Your task to perform on an android device: turn on priority inbox in the gmail app Image 0: 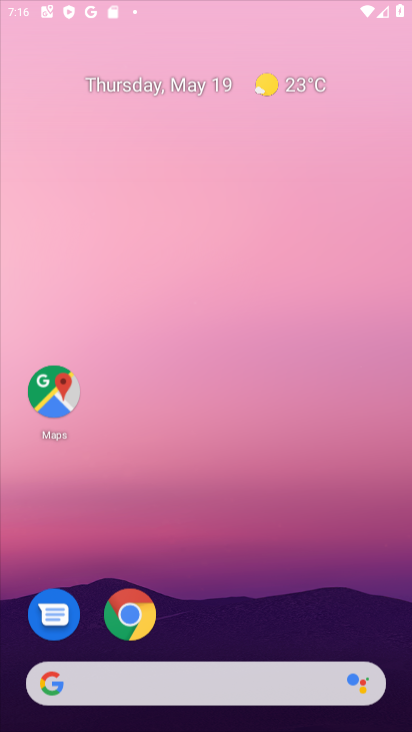
Step 0: drag from (369, 604) to (336, 48)
Your task to perform on an android device: turn on priority inbox in the gmail app Image 1: 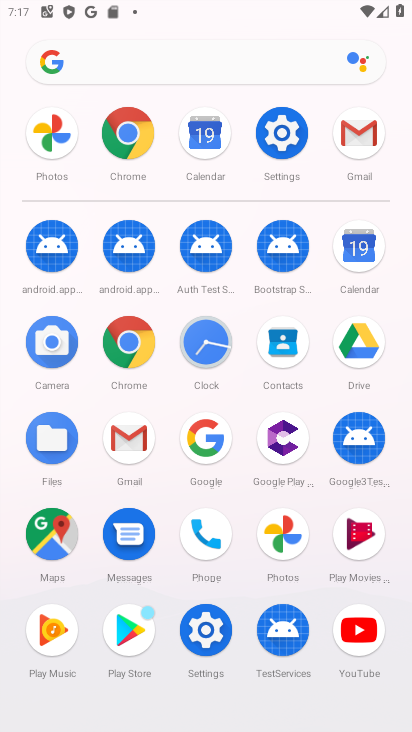
Step 1: click (105, 440)
Your task to perform on an android device: turn on priority inbox in the gmail app Image 2: 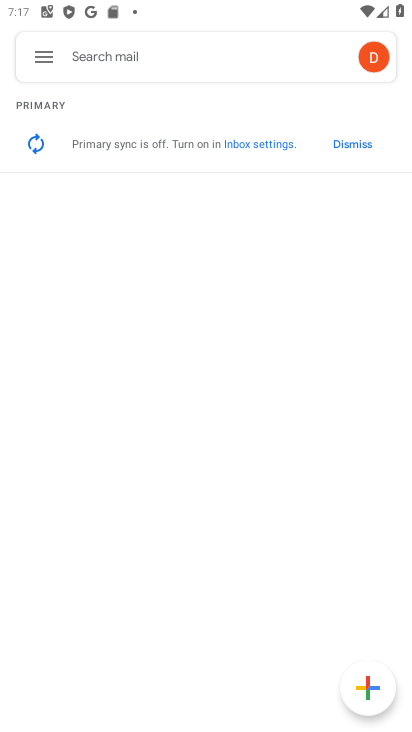
Step 2: click (56, 48)
Your task to perform on an android device: turn on priority inbox in the gmail app Image 3: 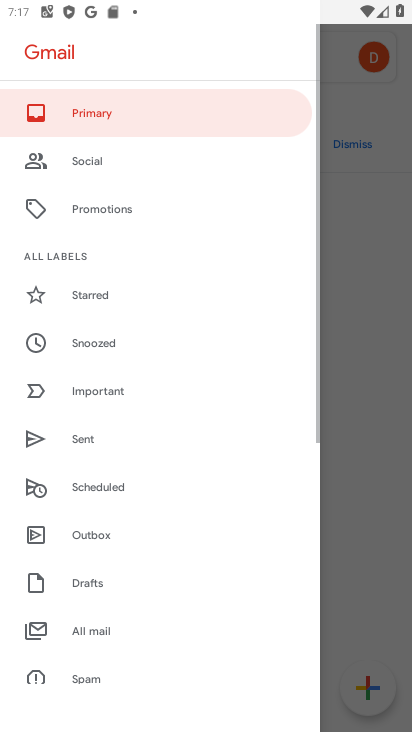
Step 3: drag from (102, 615) to (152, 121)
Your task to perform on an android device: turn on priority inbox in the gmail app Image 4: 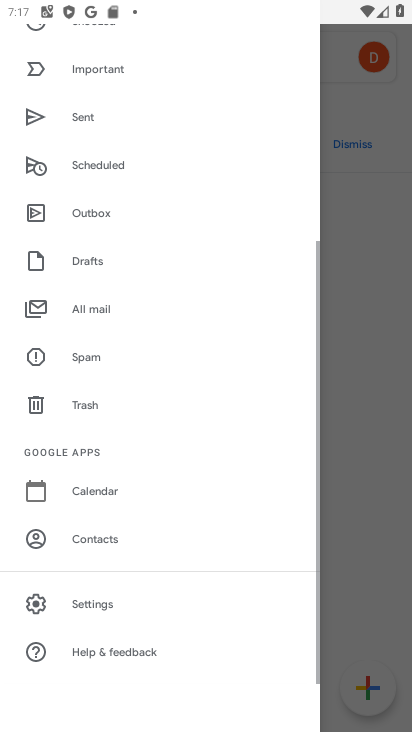
Step 4: click (118, 598)
Your task to perform on an android device: turn on priority inbox in the gmail app Image 5: 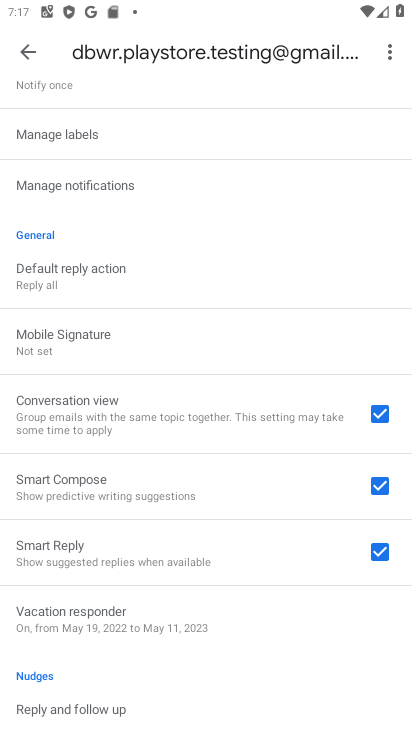
Step 5: drag from (323, 223) to (285, 652)
Your task to perform on an android device: turn on priority inbox in the gmail app Image 6: 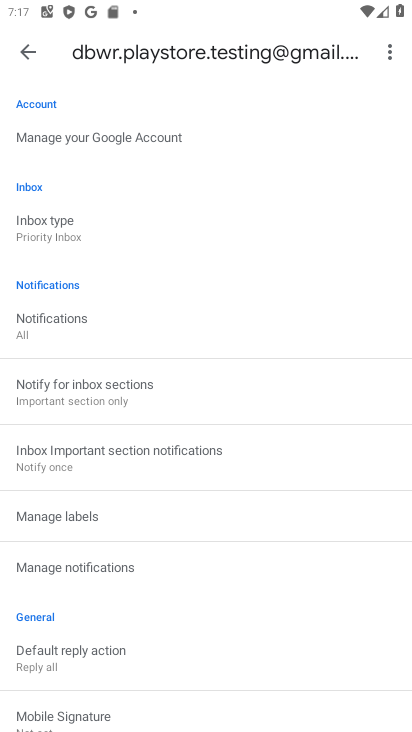
Step 6: click (144, 240)
Your task to perform on an android device: turn on priority inbox in the gmail app Image 7: 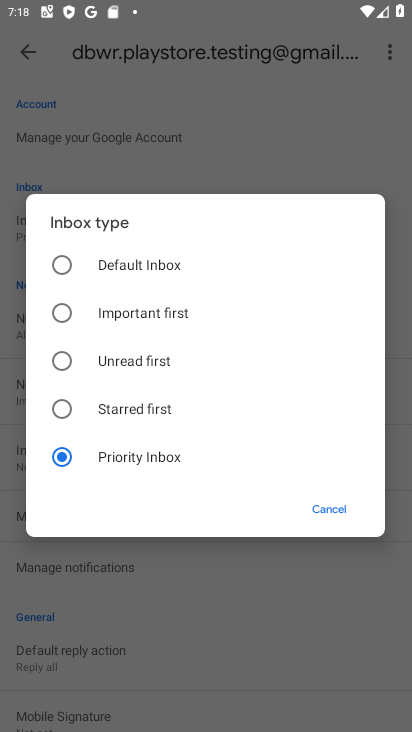
Step 7: task complete